Your task to perform on an android device: show emergency info Image 0: 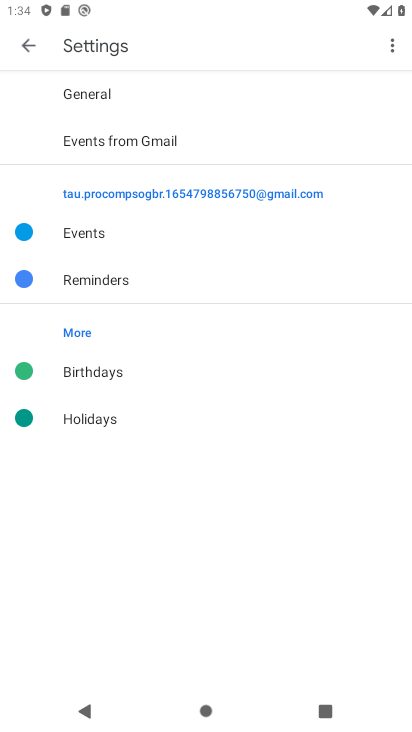
Step 0: drag from (205, 13) to (90, 713)
Your task to perform on an android device: show emergency info Image 1: 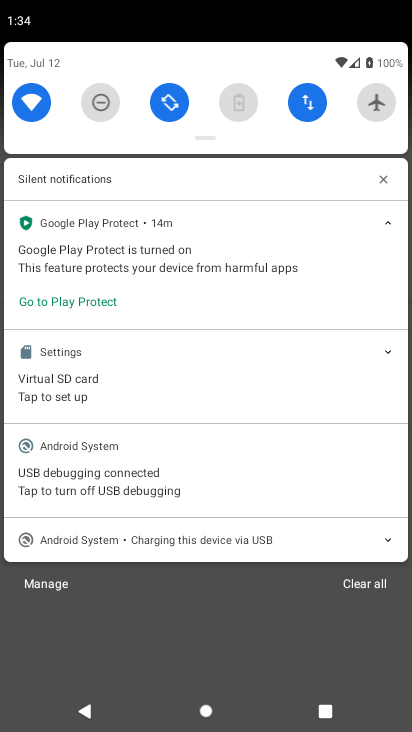
Step 1: drag from (208, 59) to (131, 634)
Your task to perform on an android device: show emergency info Image 2: 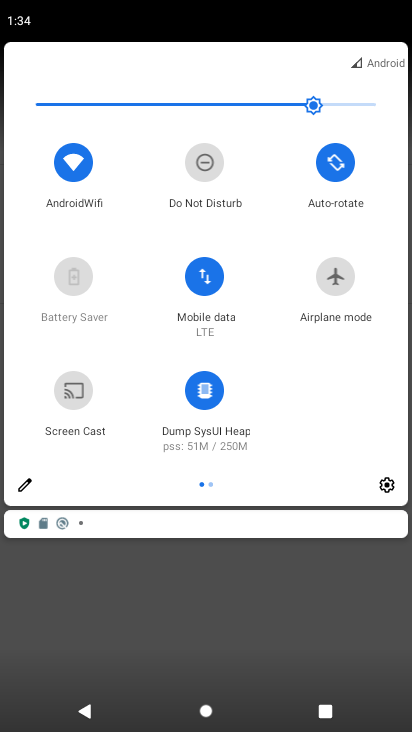
Step 2: click (386, 483)
Your task to perform on an android device: show emergency info Image 3: 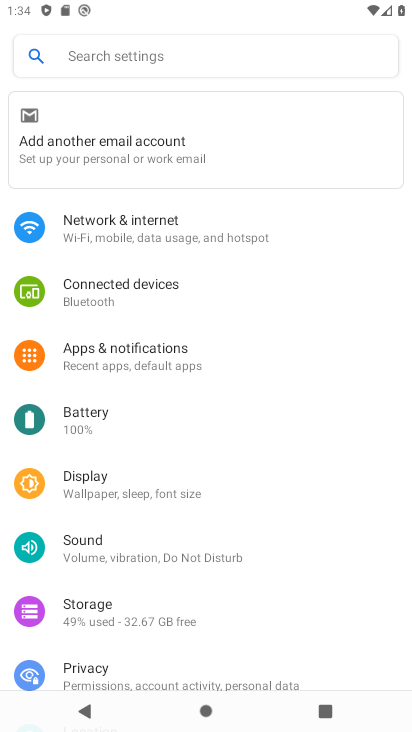
Step 3: drag from (135, 623) to (141, 181)
Your task to perform on an android device: show emergency info Image 4: 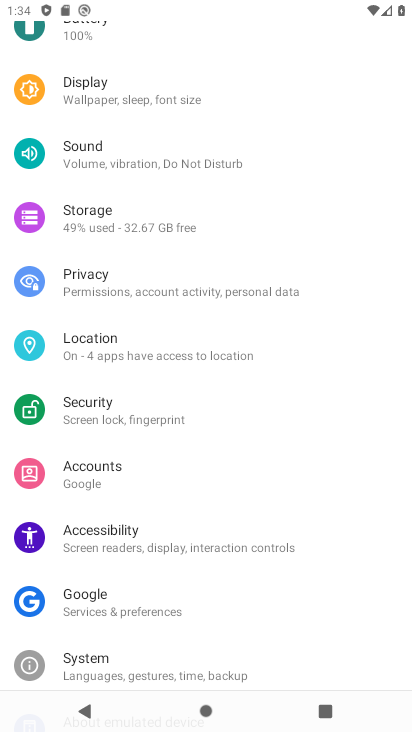
Step 4: drag from (89, 654) to (79, 152)
Your task to perform on an android device: show emergency info Image 5: 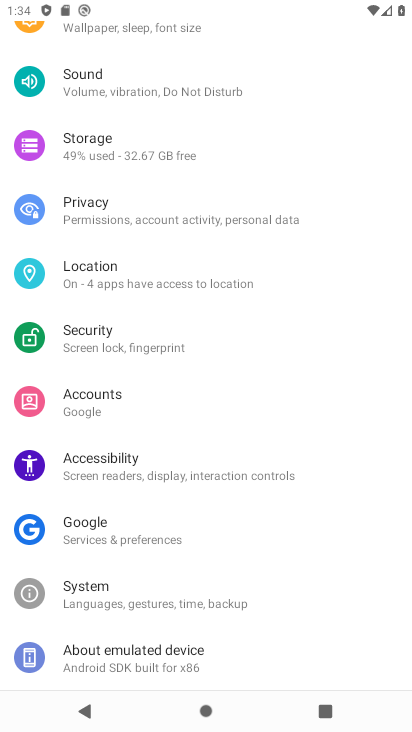
Step 5: click (146, 642)
Your task to perform on an android device: show emergency info Image 6: 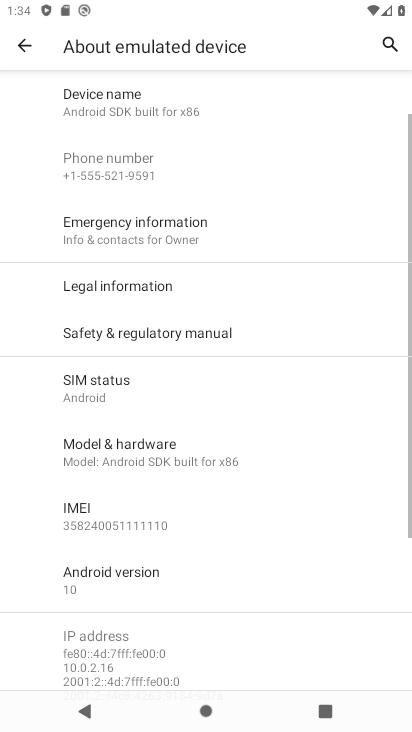
Step 6: click (163, 227)
Your task to perform on an android device: show emergency info Image 7: 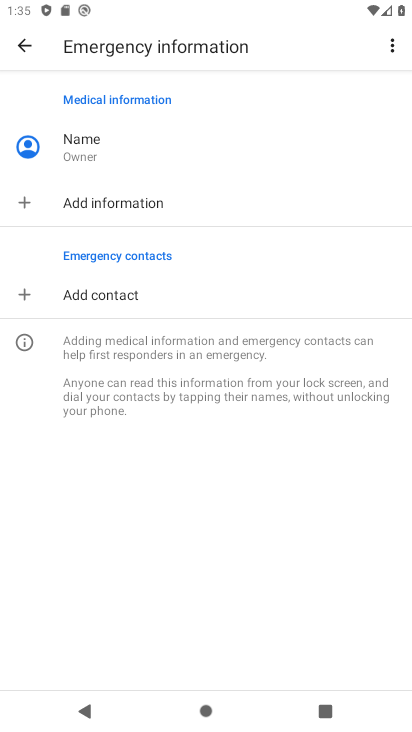
Step 7: task complete